Your task to perform on an android device: change text size in settings app Image 0: 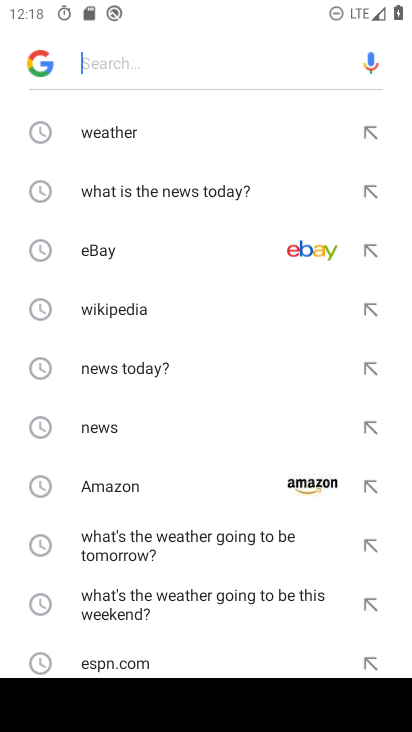
Step 0: press home button
Your task to perform on an android device: change text size in settings app Image 1: 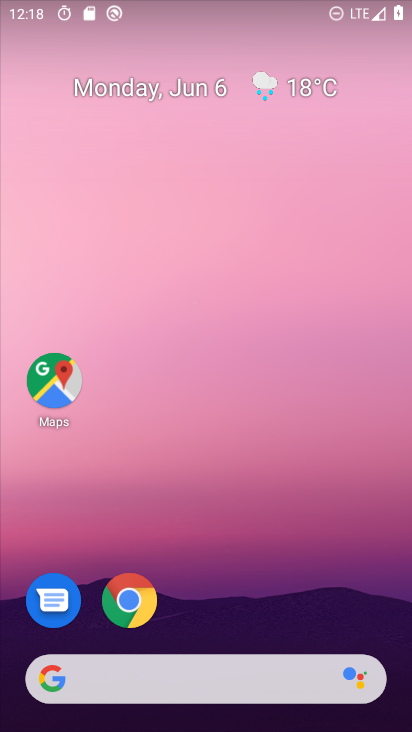
Step 1: drag from (239, 616) to (230, 259)
Your task to perform on an android device: change text size in settings app Image 2: 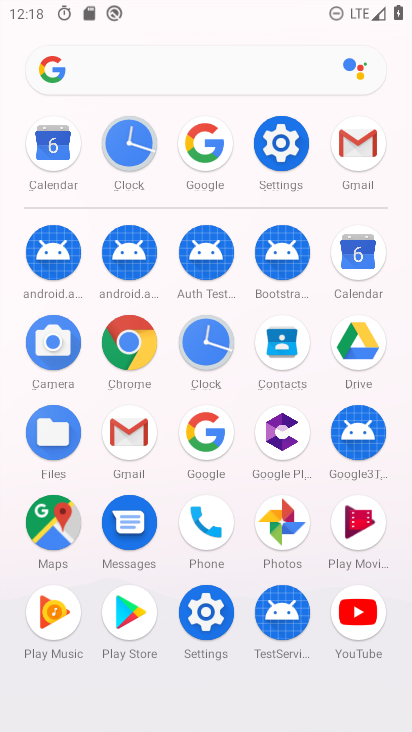
Step 2: click (258, 154)
Your task to perform on an android device: change text size in settings app Image 3: 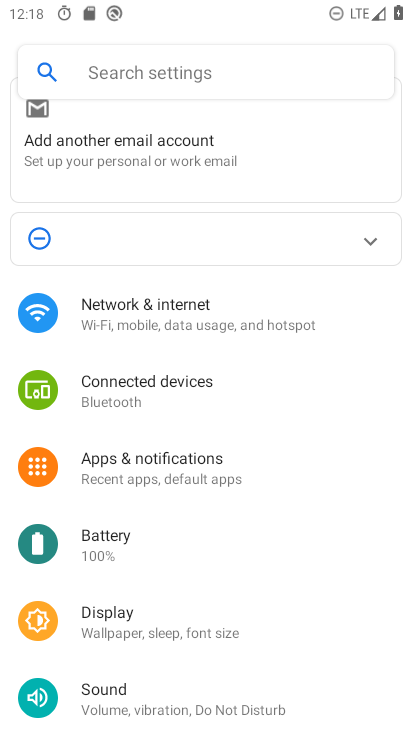
Step 3: click (145, 628)
Your task to perform on an android device: change text size in settings app Image 4: 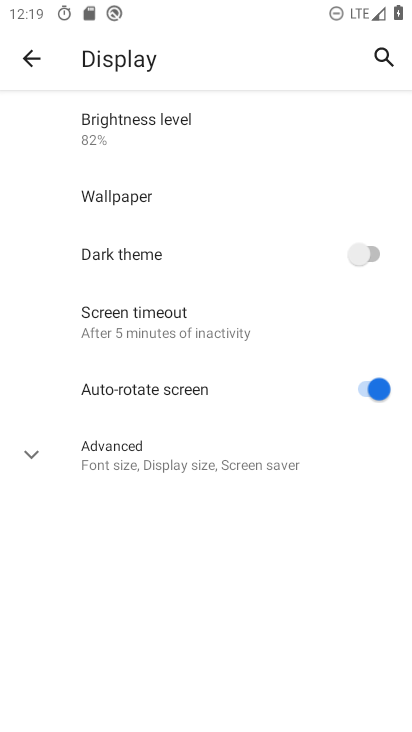
Step 4: click (150, 453)
Your task to perform on an android device: change text size in settings app Image 5: 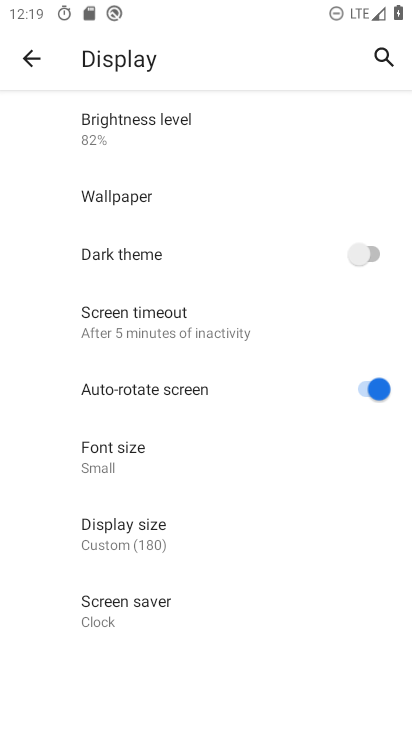
Step 5: click (133, 466)
Your task to perform on an android device: change text size in settings app Image 6: 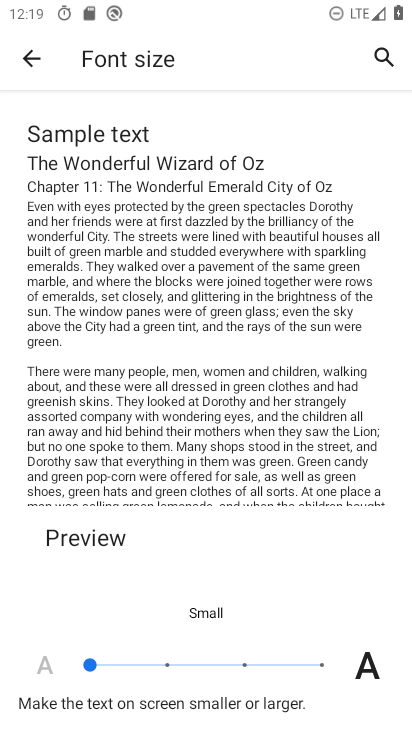
Step 6: click (157, 658)
Your task to perform on an android device: change text size in settings app Image 7: 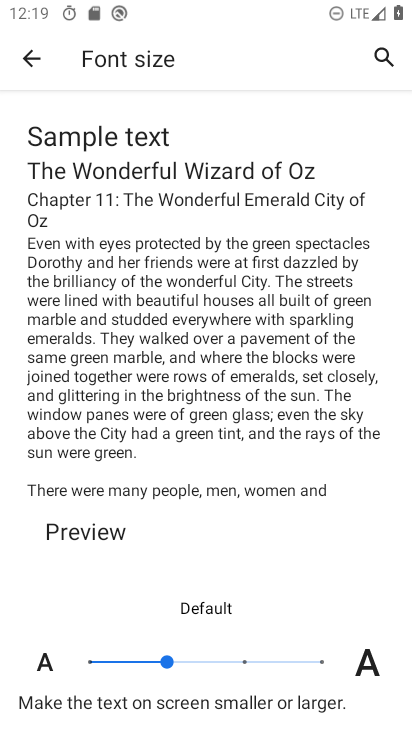
Step 7: task complete